Your task to perform on an android device: Go to Reddit.com Image 0: 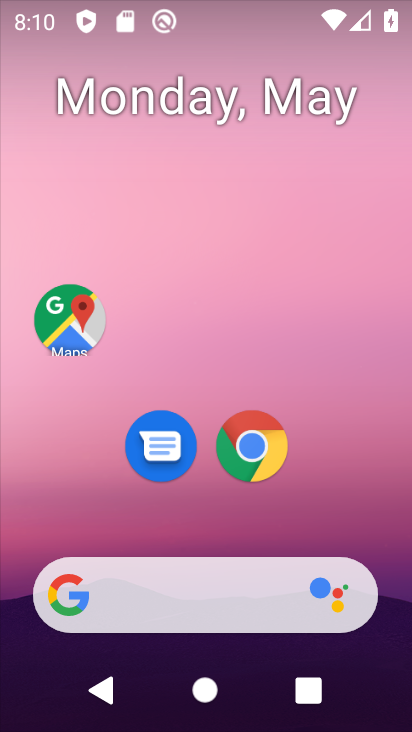
Step 0: press home button
Your task to perform on an android device: Go to Reddit.com Image 1: 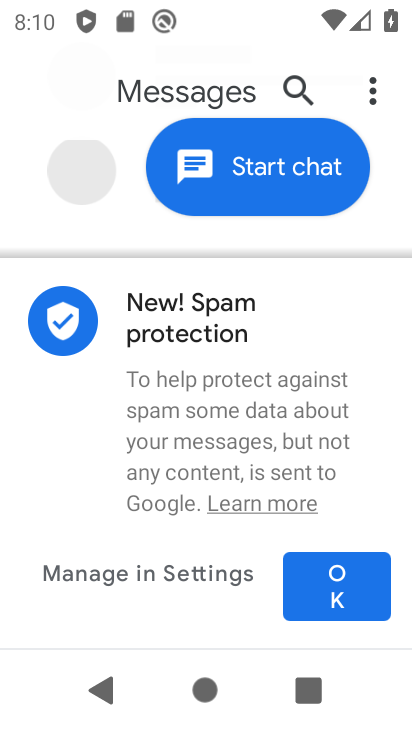
Step 1: drag from (226, 370) to (259, 82)
Your task to perform on an android device: Go to Reddit.com Image 2: 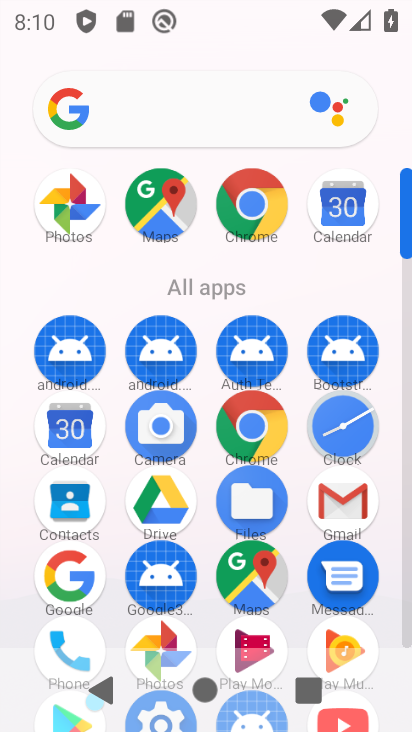
Step 2: click (245, 197)
Your task to perform on an android device: Go to Reddit.com Image 3: 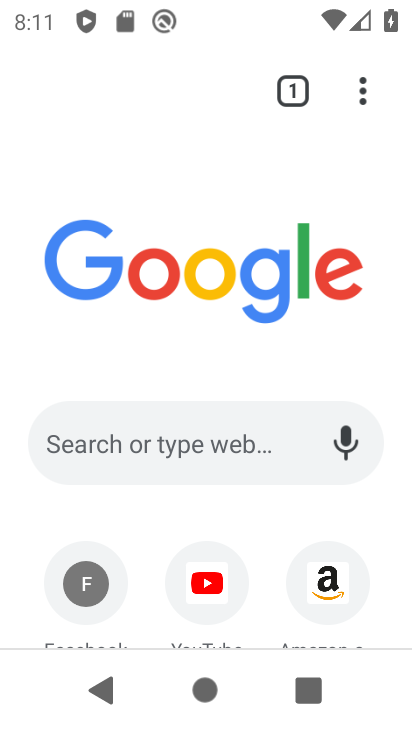
Step 3: click (143, 443)
Your task to perform on an android device: Go to Reddit.com Image 4: 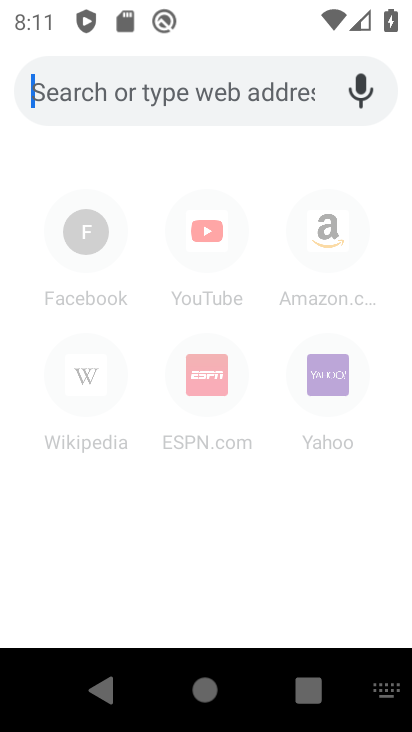
Step 4: type "reddit"
Your task to perform on an android device: Go to Reddit.com Image 5: 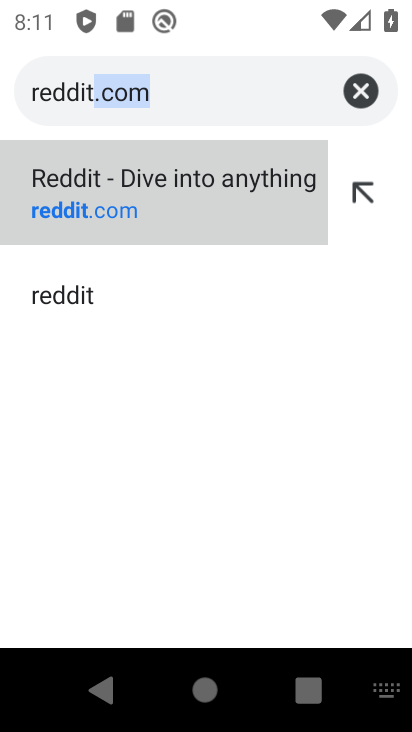
Step 5: click (142, 198)
Your task to perform on an android device: Go to Reddit.com Image 6: 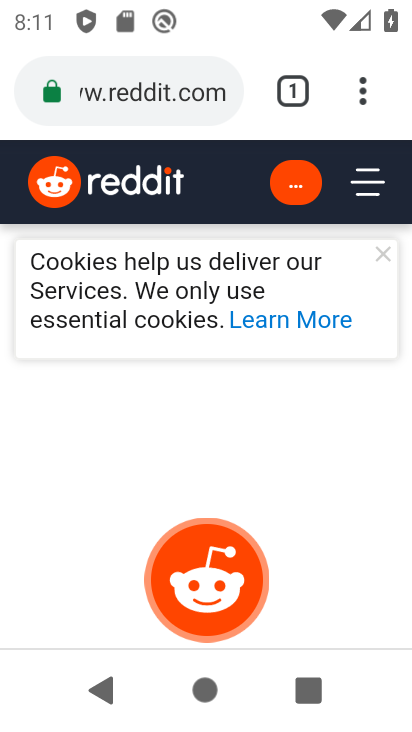
Step 6: drag from (299, 561) to (311, 286)
Your task to perform on an android device: Go to Reddit.com Image 7: 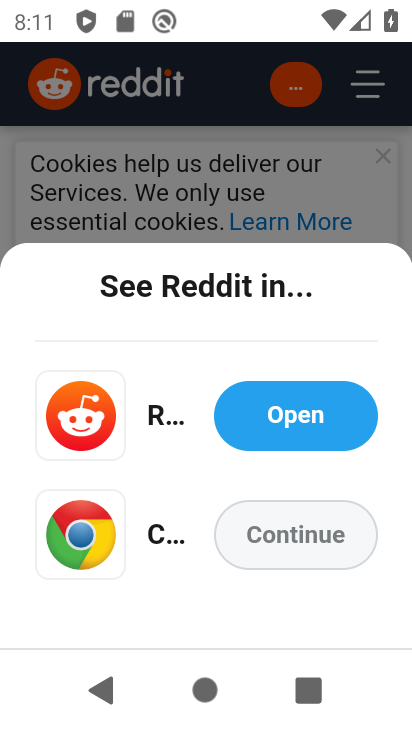
Step 7: click (300, 538)
Your task to perform on an android device: Go to Reddit.com Image 8: 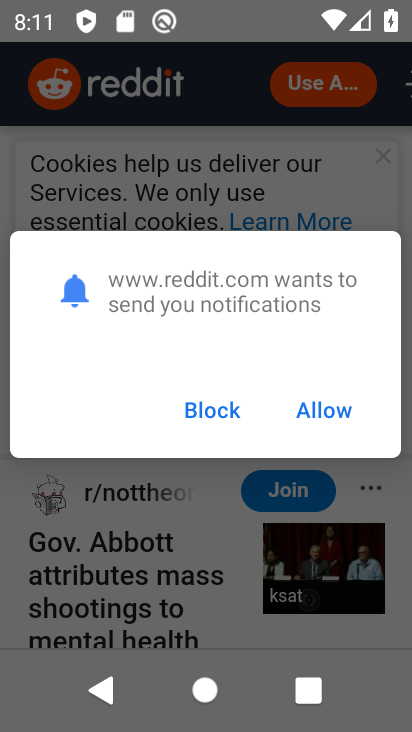
Step 8: click (212, 410)
Your task to perform on an android device: Go to Reddit.com Image 9: 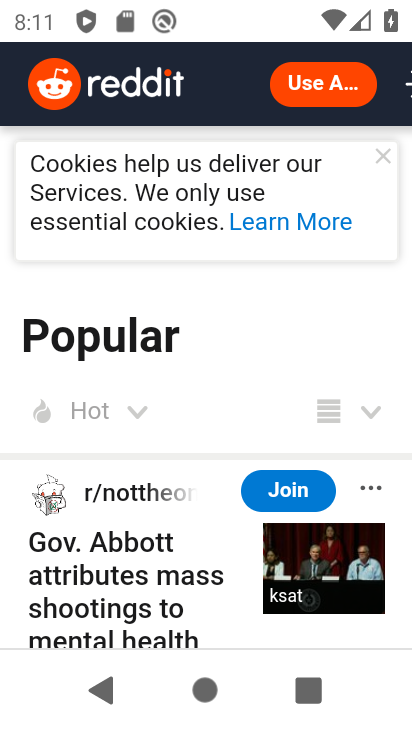
Step 9: task complete